Your task to perform on an android device: Go to Google maps Image 0: 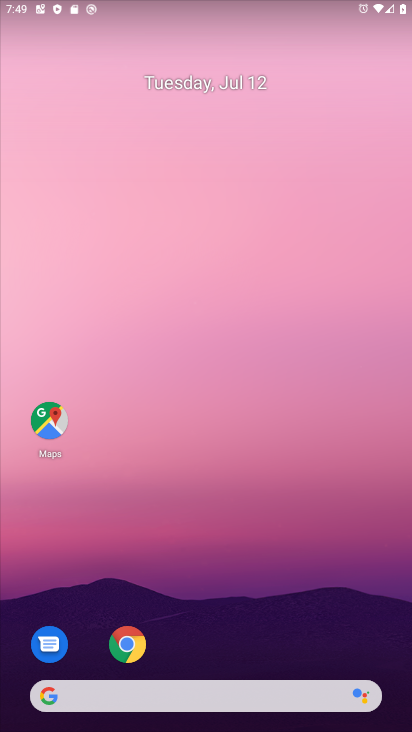
Step 0: click (60, 417)
Your task to perform on an android device: Go to Google maps Image 1: 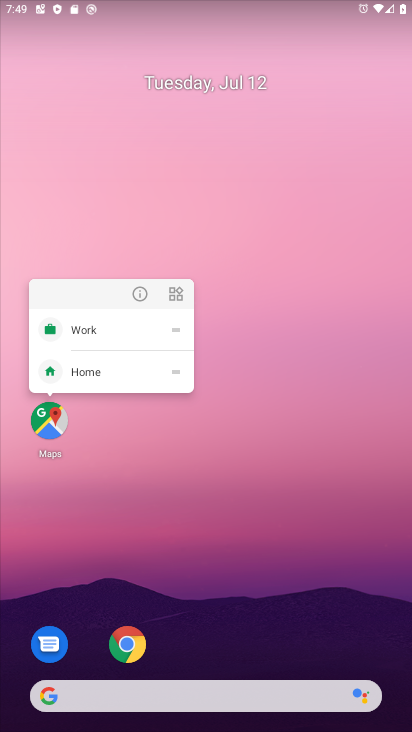
Step 1: click (60, 417)
Your task to perform on an android device: Go to Google maps Image 2: 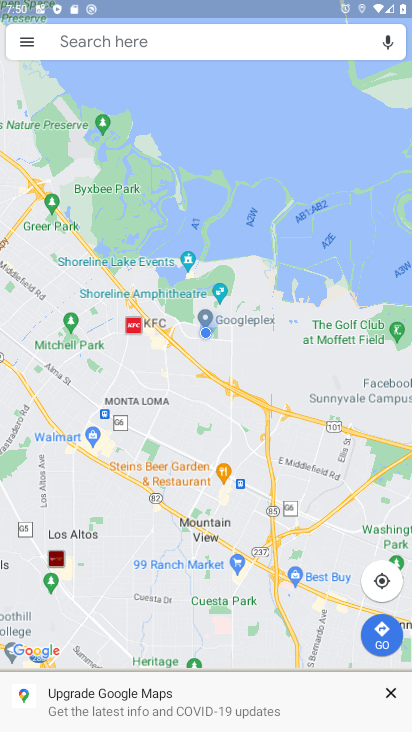
Step 2: task complete